Your task to perform on an android device: Is it going to rain this weekend? Image 0: 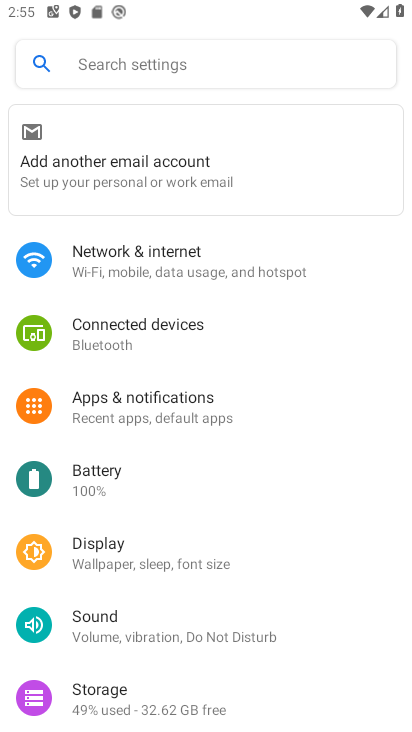
Step 0: press home button
Your task to perform on an android device: Is it going to rain this weekend? Image 1: 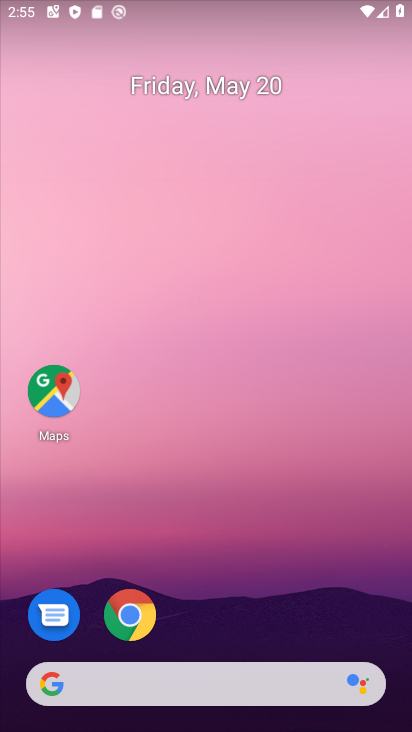
Step 1: drag from (224, 607) to (227, 181)
Your task to perform on an android device: Is it going to rain this weekend? Image 2: 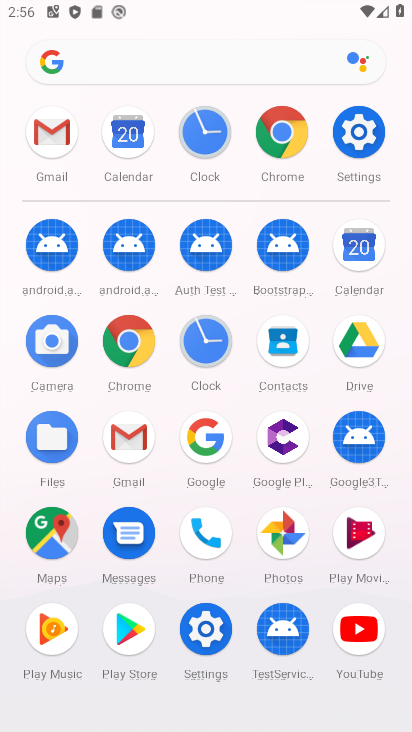
Step 2: click (132, 337)
Your task to perform on an android device: Is it going to rain this weekend? Image 3: 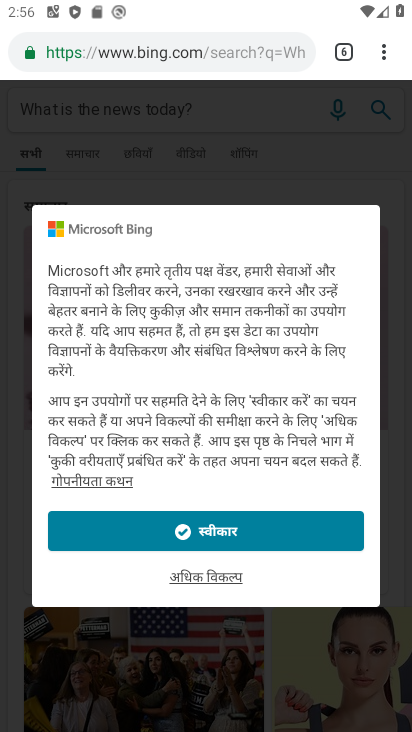
Step 3: click (380, 61)
Your task to perform on an android device: Is it going to rain this weekend? Image 4: 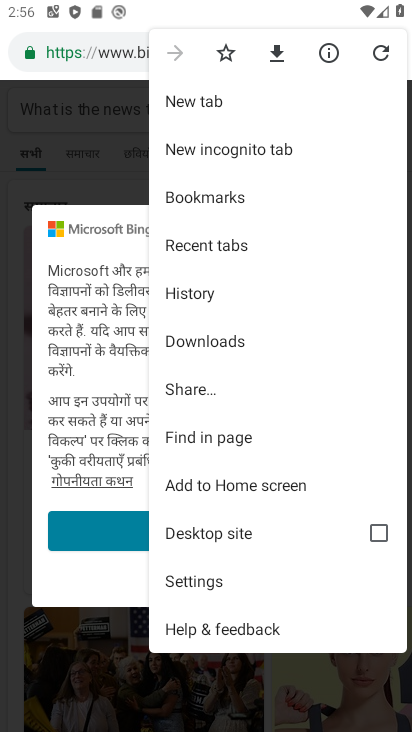
Step 4: click (248, 97)
Your task to perform on an android device: Is it going to rain this weekend? Image 5: 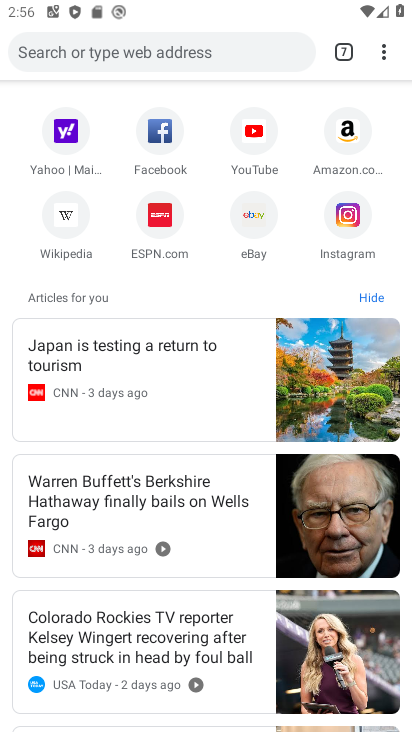
Step 5: click (142, 49)
Your task to perform on an android device: Is it going to rain this weekend? Image 6: 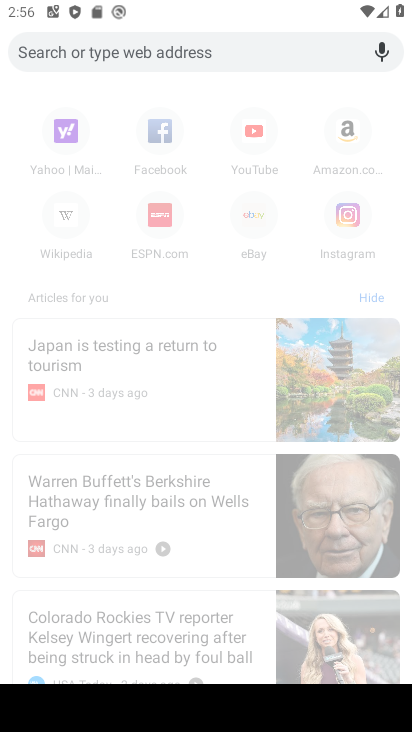
Step 6: type "Is it going to rain this weekend?"
Your task to perform on an android device: Is it going to rain this weekend? Image 7: 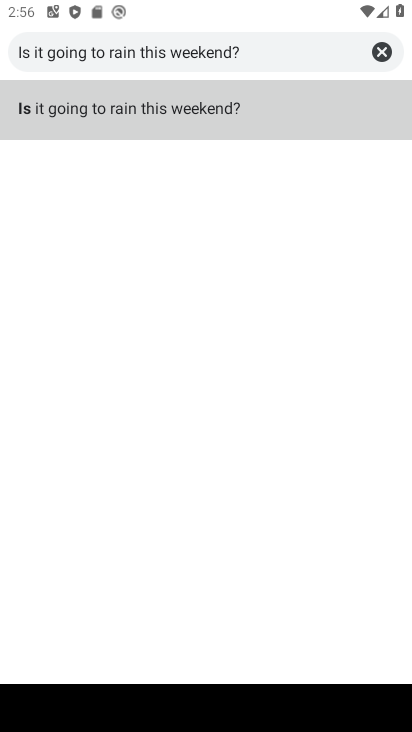
Step 7: click (179, 114)
Your task to perform on an android device: Is it going to rain this weekend? Image 8: 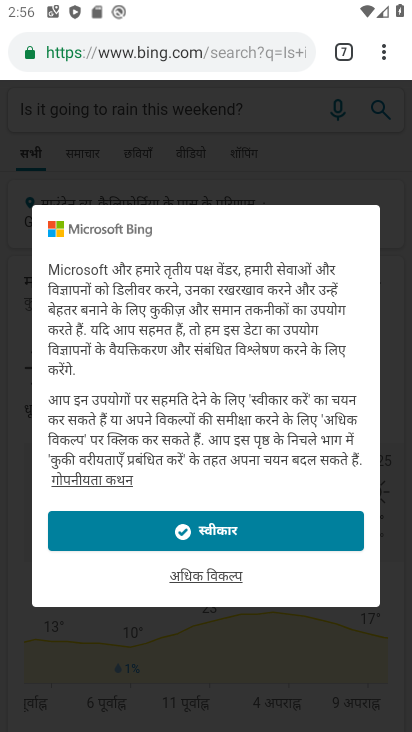
Step 8: task complete